Your task to perform on an android device: Search for sushi restaurants on Maps Image 0: 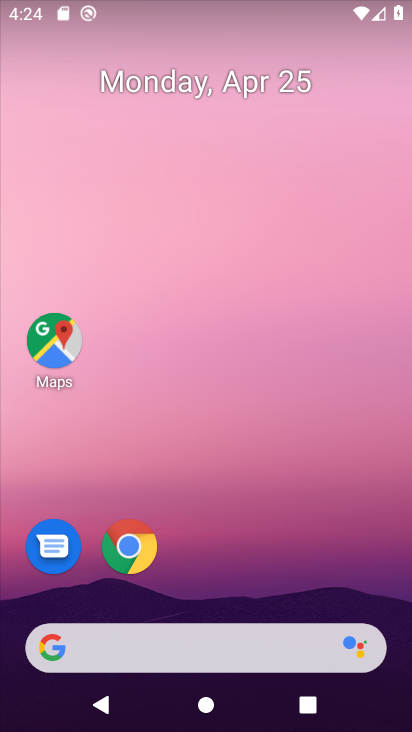
Step 0: click (64, 338)
Your task to perform on an android device: Search for sushi restaurants on Maps Image 1: 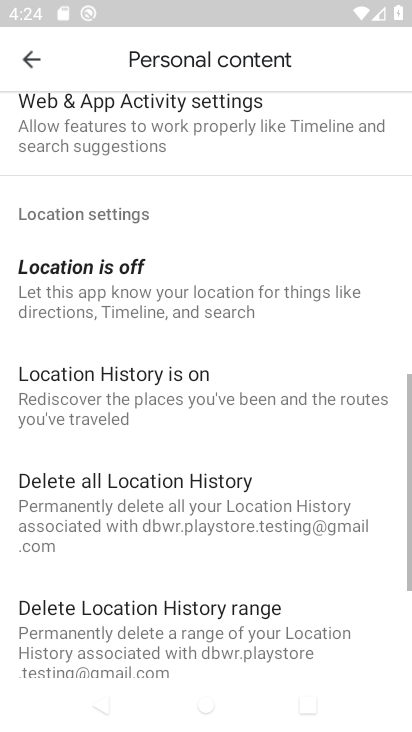
Step 1: click (32, 56)
Your task to perform on an android device: Search for sushi restaurants on Maps Image 2: 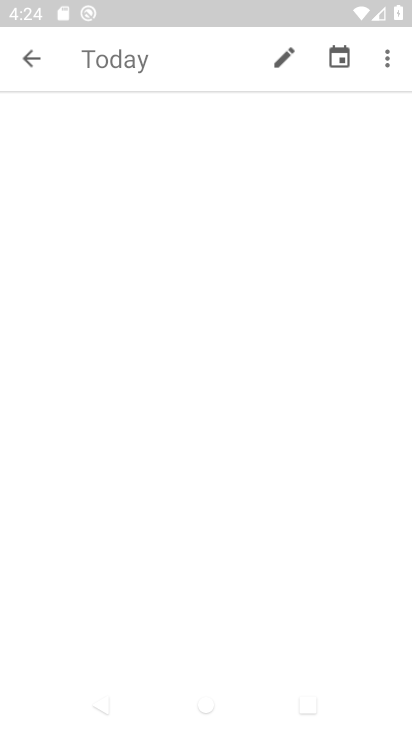
Step 2: click (33, 56)
Your task to perform on an android device: Search for sushi restaurants on Maps Image 3: 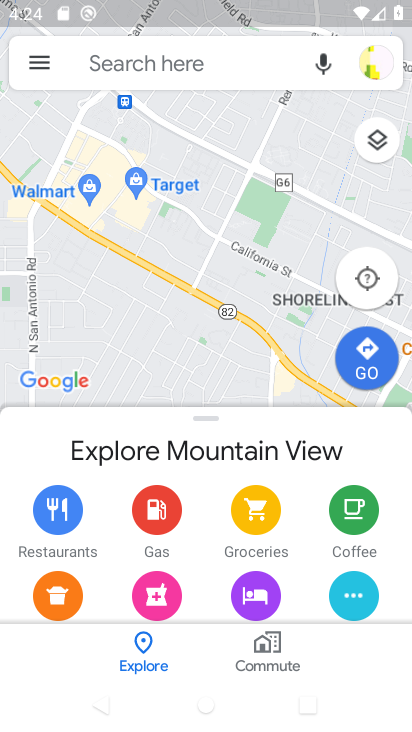
Step 3: click (178, 65)
Your task to perform on an android device: Search for sushi restaurants on Maps Image 4: 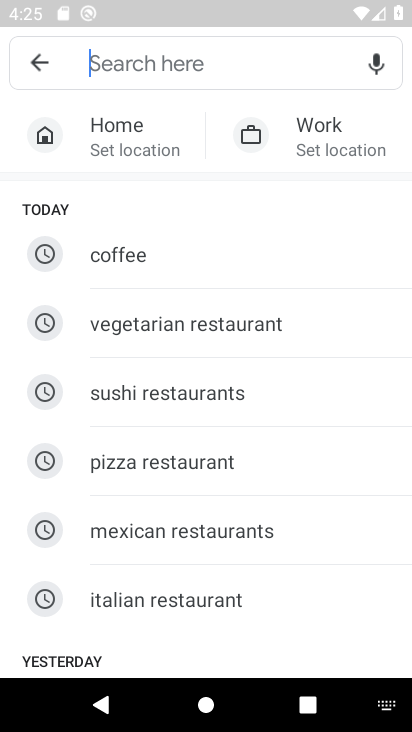
Step 4: type "sushi restaurants'"
Your task to perform on an android device: Search for sushi restaurants on Maps Image 5: 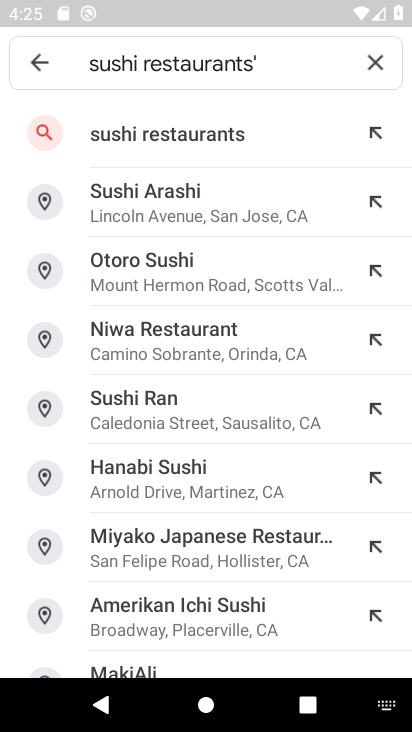
Step 5: click (241, 136)
Your task to perform on an android device: Search for sushi restaurants on Maps Image 6: 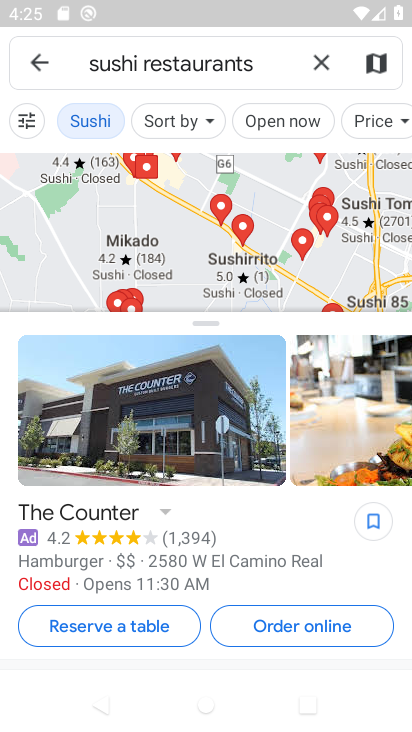
Step 6: task complete